Your task to perform on an android device: Open my contact list Image 0: 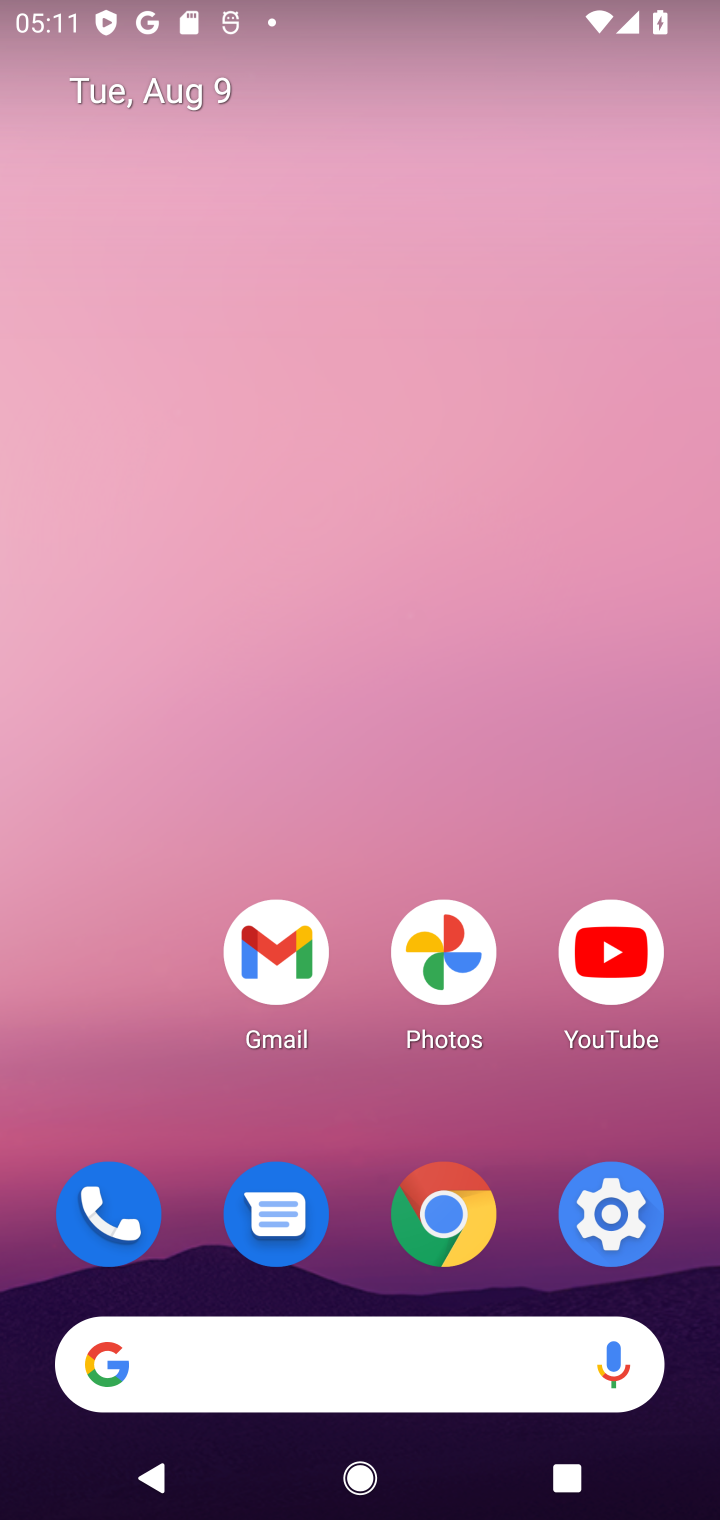
Step 0: drag from (525, 1256) to (577, 371)
Your task to perform on an android device: Open my contact list Image 1: 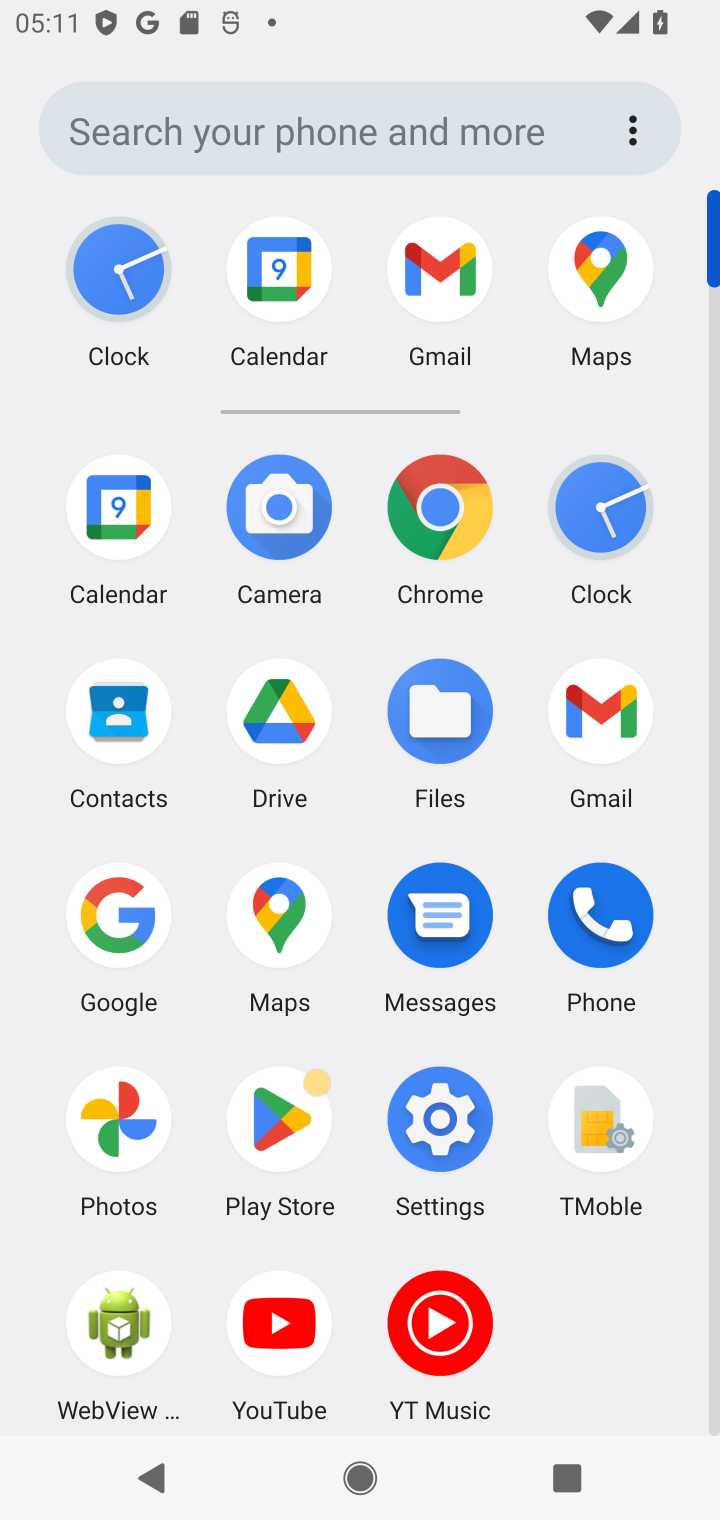
Step 1: click (610, 904)
Your task to perform on an android device: Open my contact list Image 2: 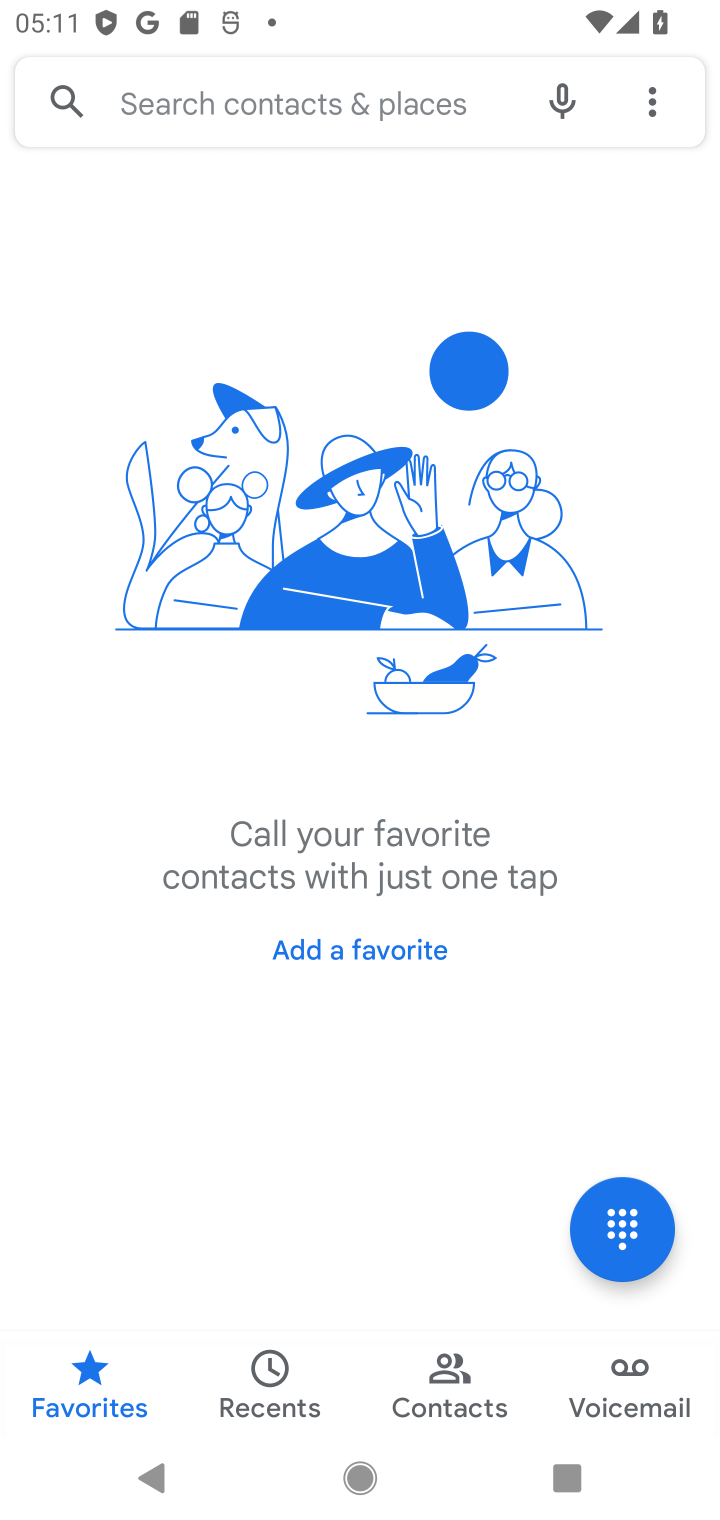
Step 2: click (464, 1426)
Your task to perform on an android device: Open my contact list Image 3: 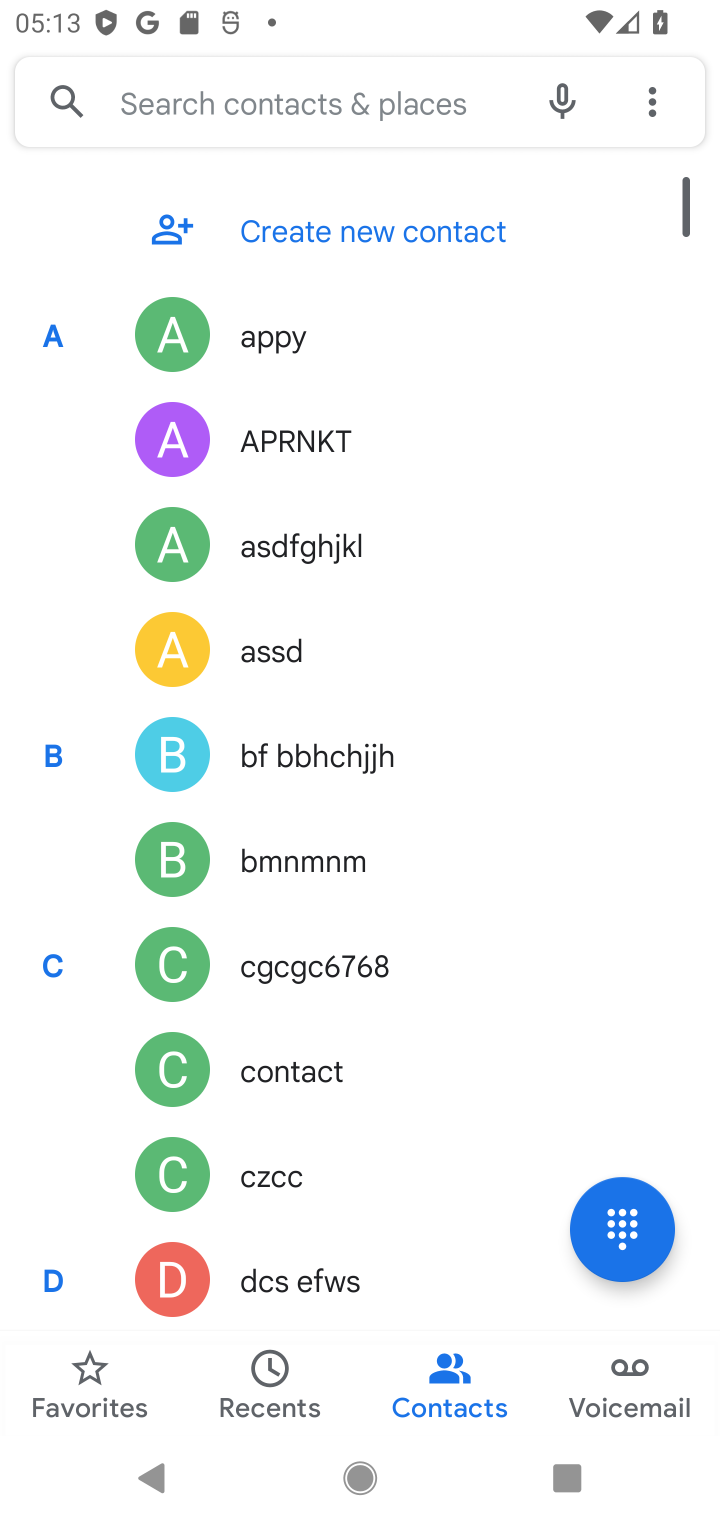
Step 3: task complete